Your task to perform on an android device: open app "Airtel Thanks" (install if not already installed), go to login, and select forgot password Image 0: 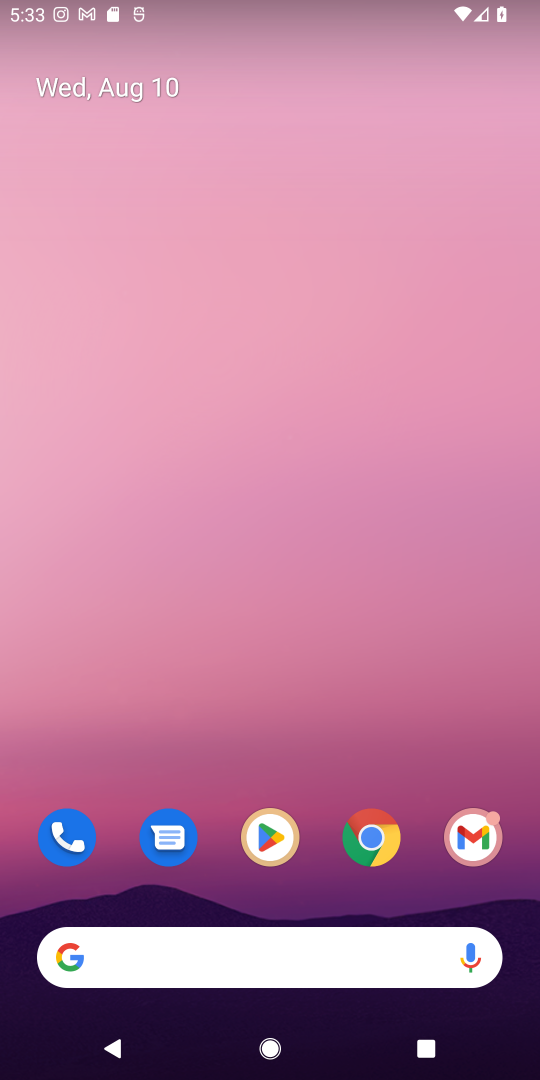
Step 0: press home button
Your task to perform on an android device: open app "Airtel Thanks" (install if not already installed), go to login, and select forgot password Image 1: 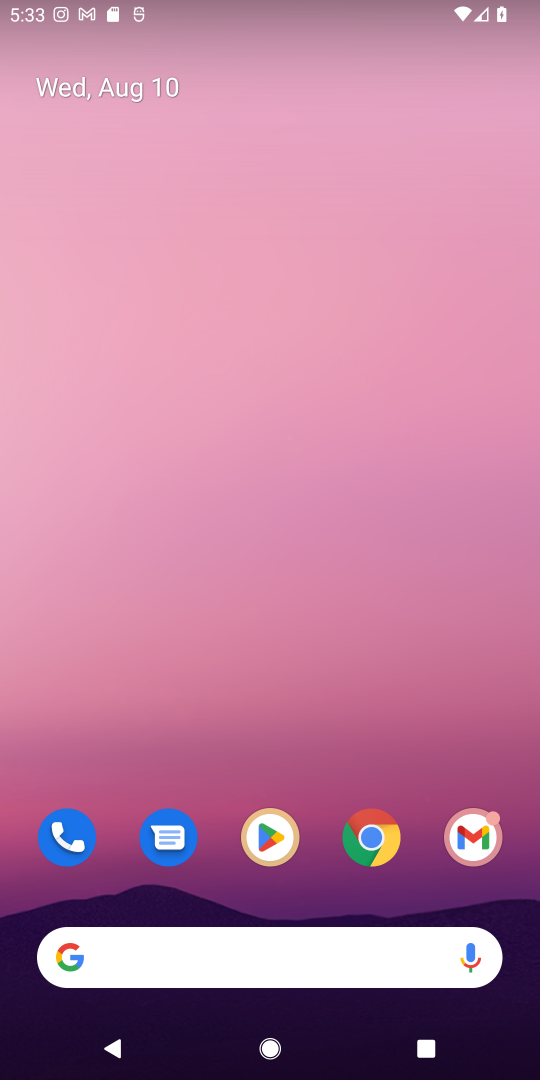
Step 1: click (270, 837)
Your task to perform on an android device: open app "Airtel Thanks" (install if not already installed), go to login, and select forgot password Image 2: 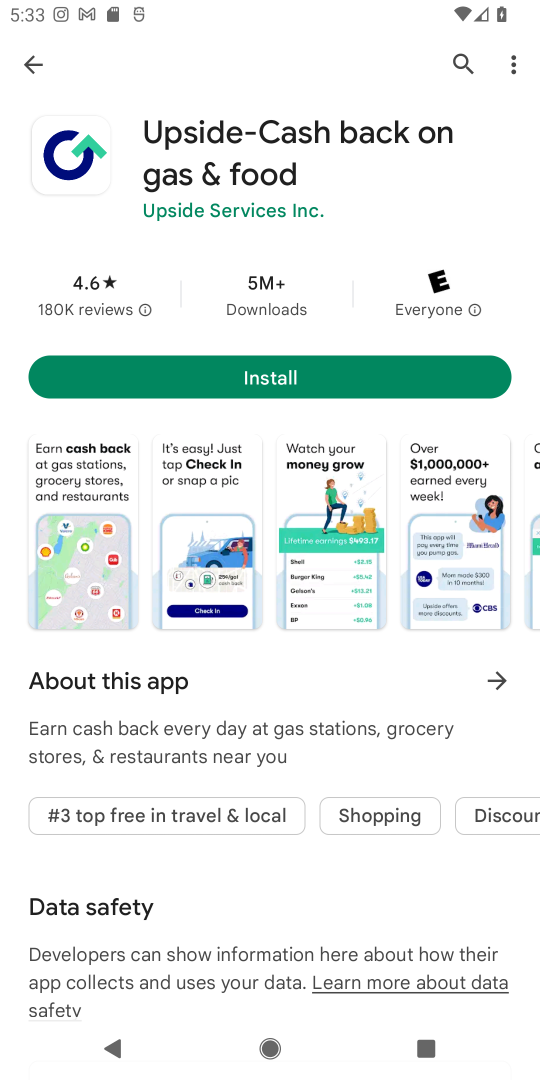
Step 2: click (462, 55)
Your task to perform on an android device: open app "Airtel Thanks" (install if not already installed), go to login, and select forgot password Image 3: 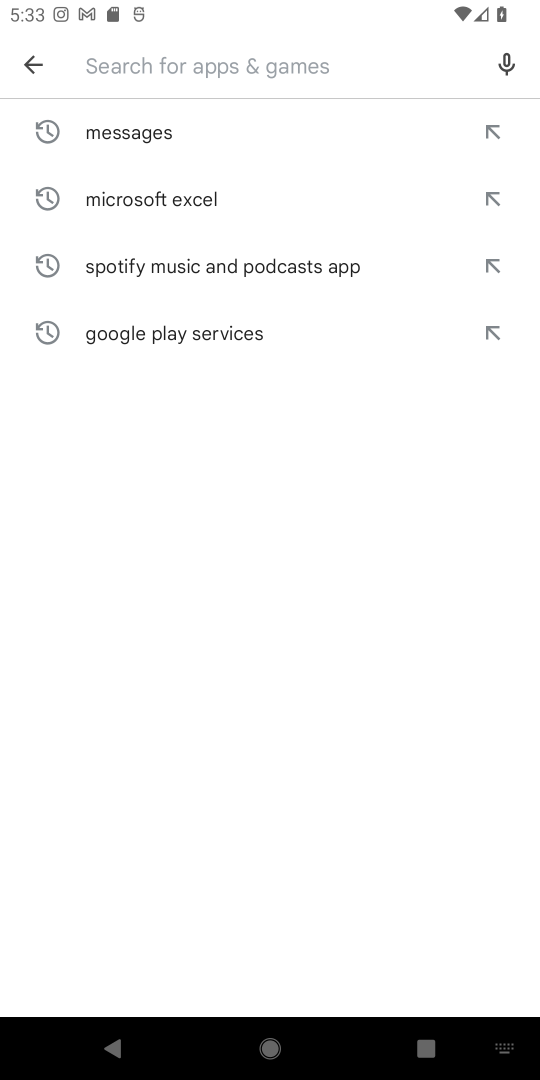
Step 3: type "Airtel Thanks"
Your task to perform on an android device: open app "Airtel Thanks" (install if not already installed), go to login, and select forgot password Image 4: 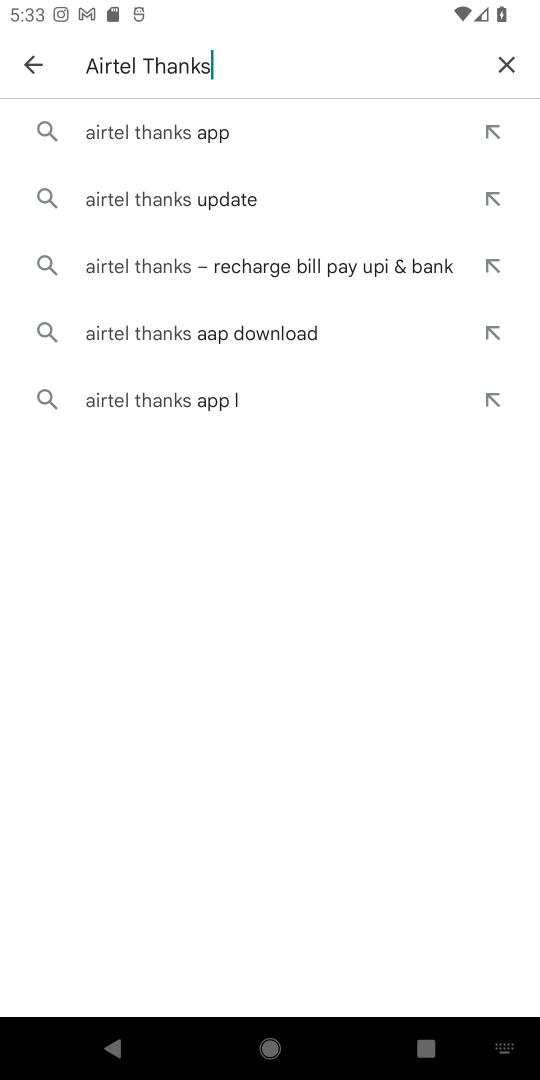
Step 4: click (201, 132)
Your task to perform on an android device: open app "Airtel Thanks" (install if not already installed), go to login, and select forgot password Image 5: 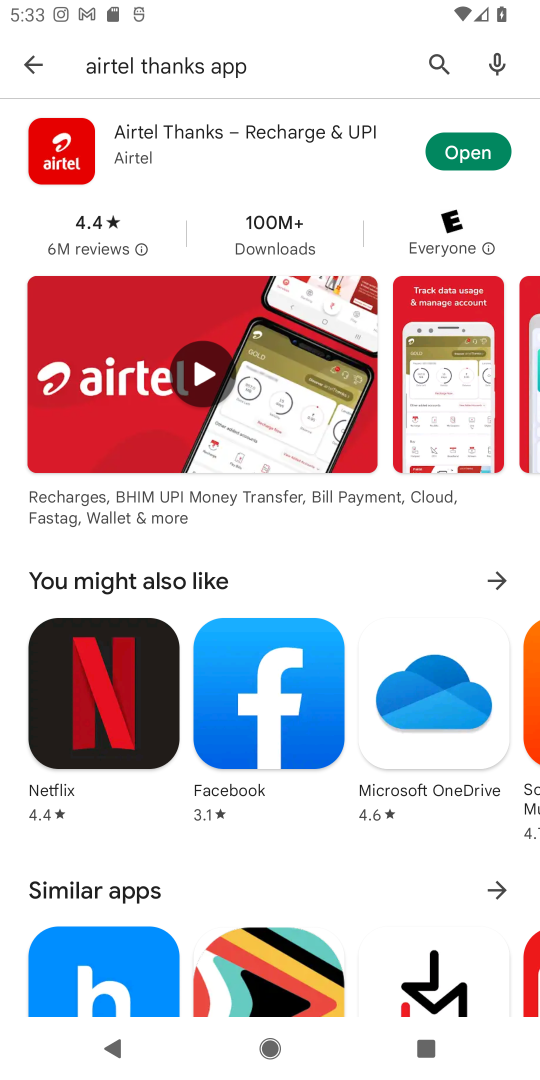
Step 5: click (453, 148)
Your task to perform on an android device: open app "Airtel Thanks" (install if not already installed), go to login, and select forgot password Image 6: 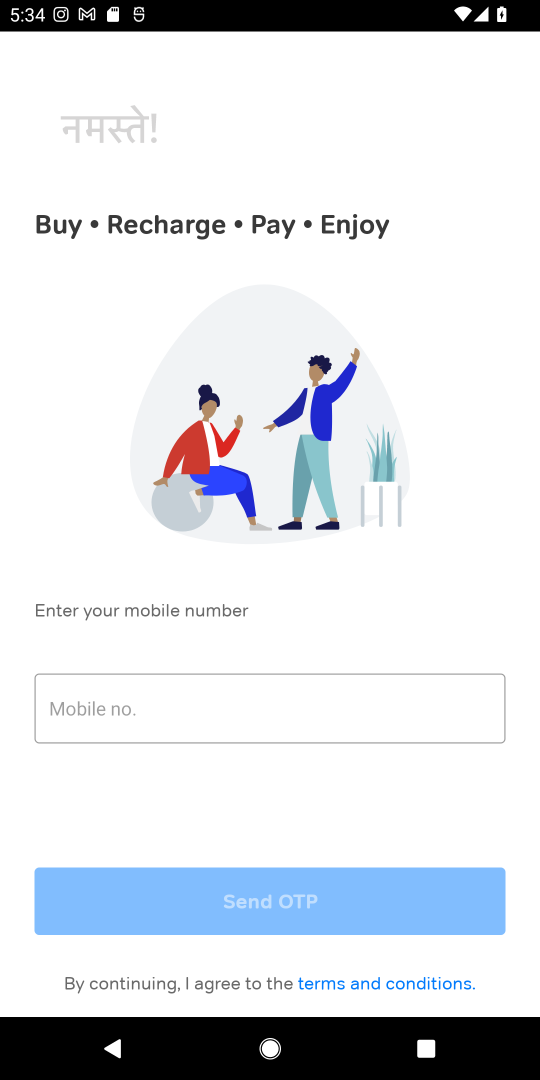
Step 6: task complete